Your task to perform on an android device: toggle data saver in the chrome app Image 0: 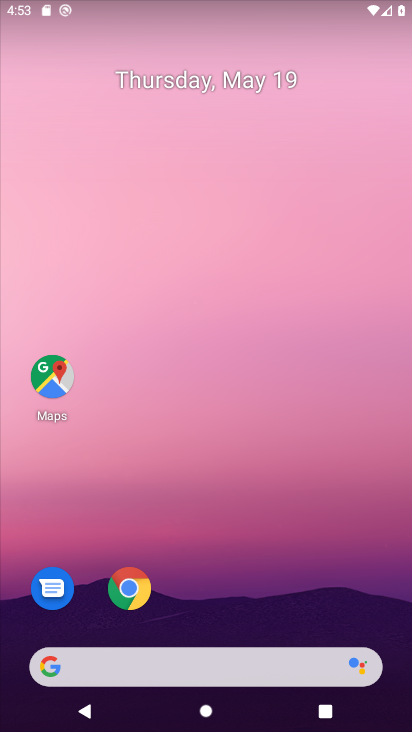
Step 0: click (137, 593)
Your task to perform on an android device: toggle data saver in the chrome app Image 1: 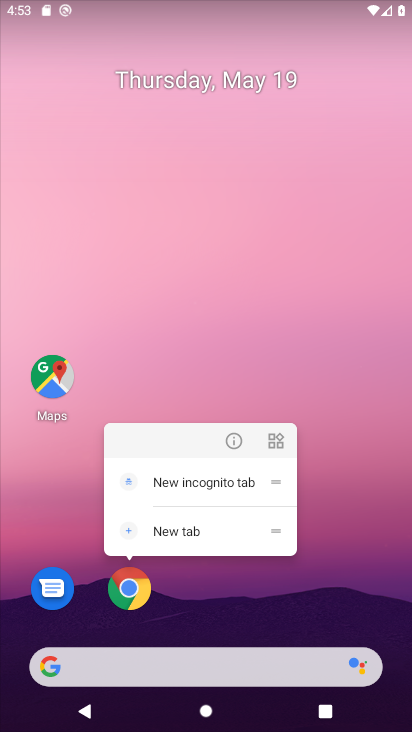
Step 1: click (136, 594)
Your task to perform on an android device: toggle data saver in the chrome app Image 2: 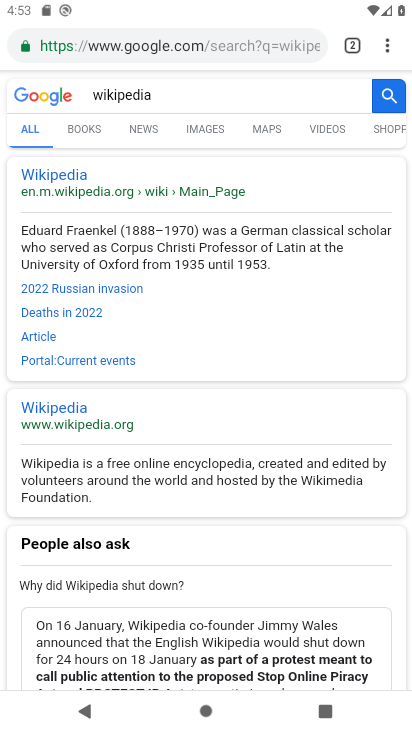
Step 2: click (388, 44)
Your task to perform on an android device: toggle data saver in the chrome app Image 3: 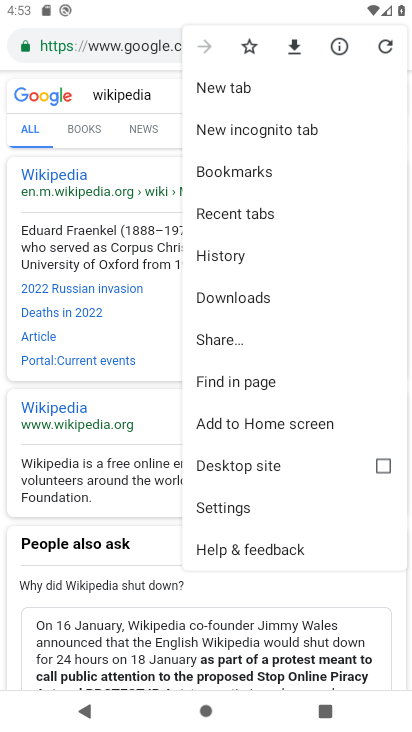
Step 3: click (241, 503)
Your task to perform on an android device: toggle data saver in the chrome app Image 4: 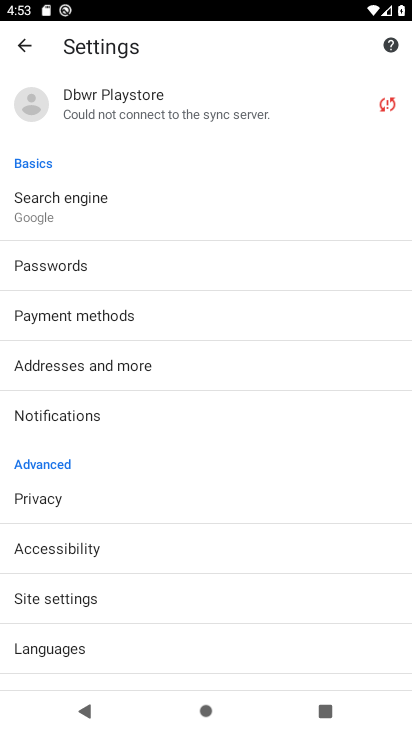
Step 4: drag from (138, 612) to (170, 430)
Your task to perform on an android device: toggle data saver in the chrome app Image 5: 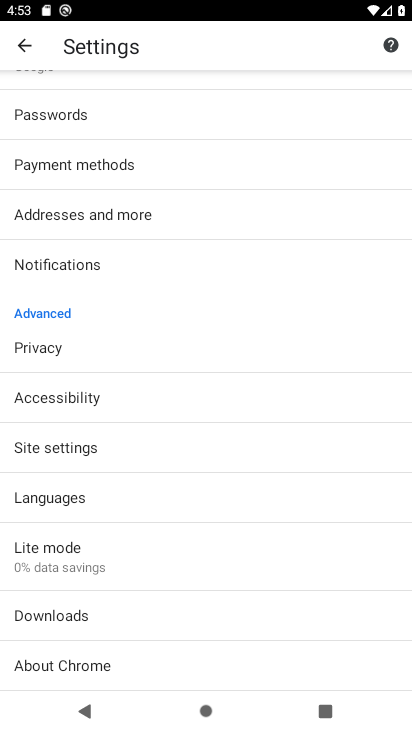
Step 5: click (90, 543)
Your task to perform on an android device: toggle data saver in the chrome app Image 6: 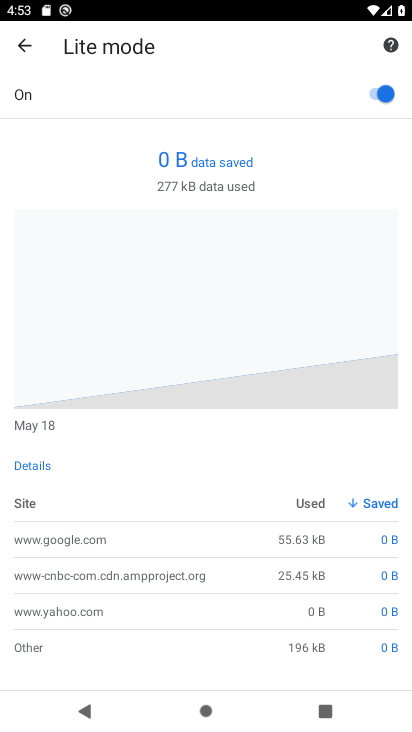
Step 6: click (359, 94)
Your task to perform on an android device: toggle data saver in the chrome app Image 7: 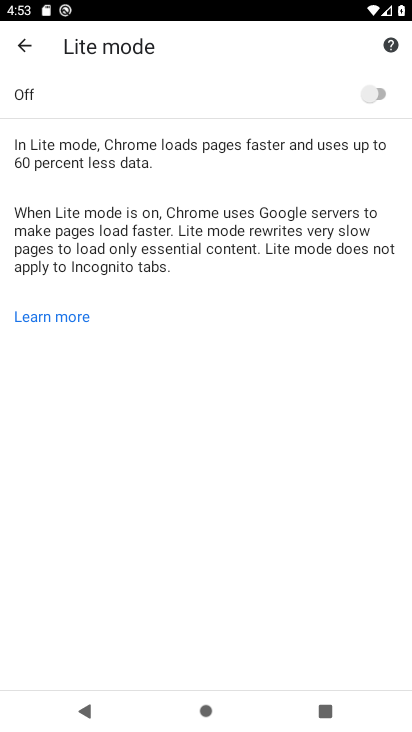
Step 7: task complete